Your task to perform on an android device: Clear the cart on target. Search for razer blade on target, select the first entry, add it to the cart, then select checkout. Image 0: 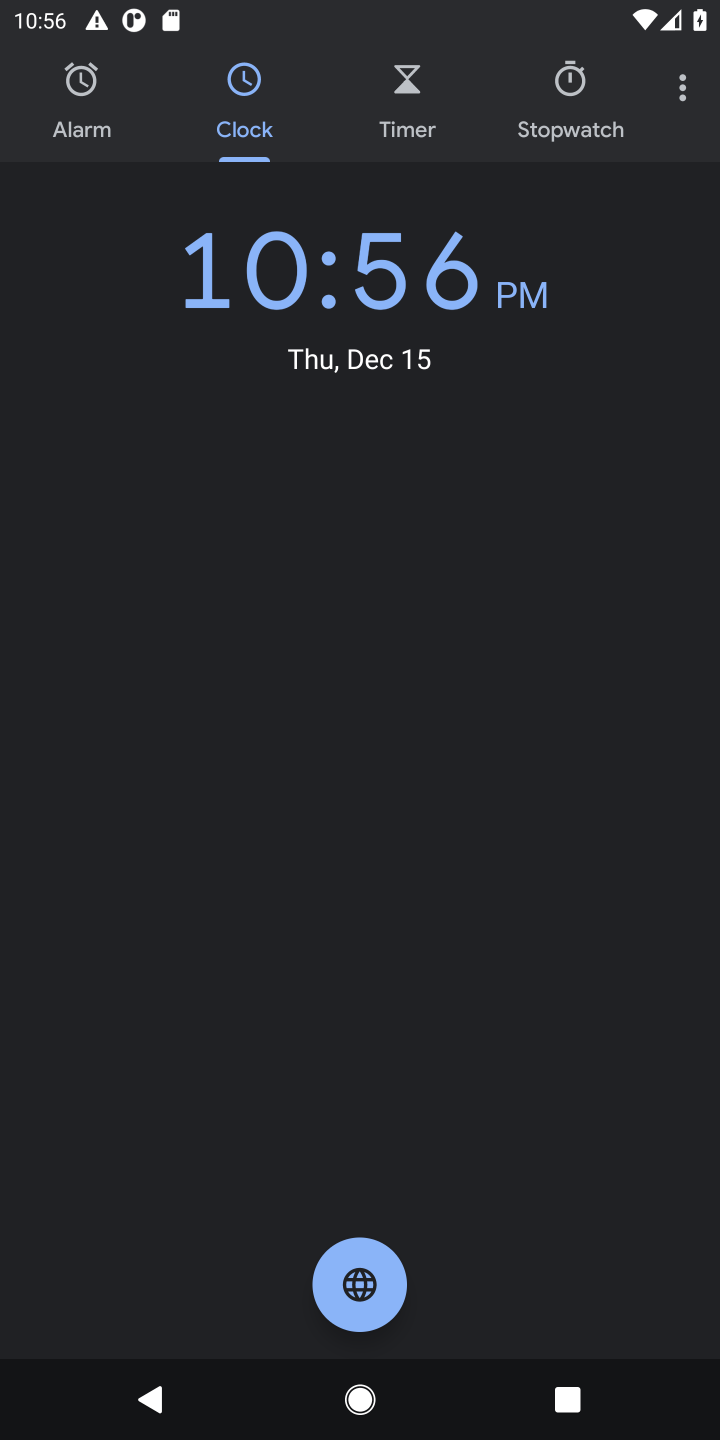
Step 0: press home button
Your task to perform on an android device: Clear the cart on target. Search for razer blade on target, select the first entry, add it to the cart, then select checkout. Image 1: 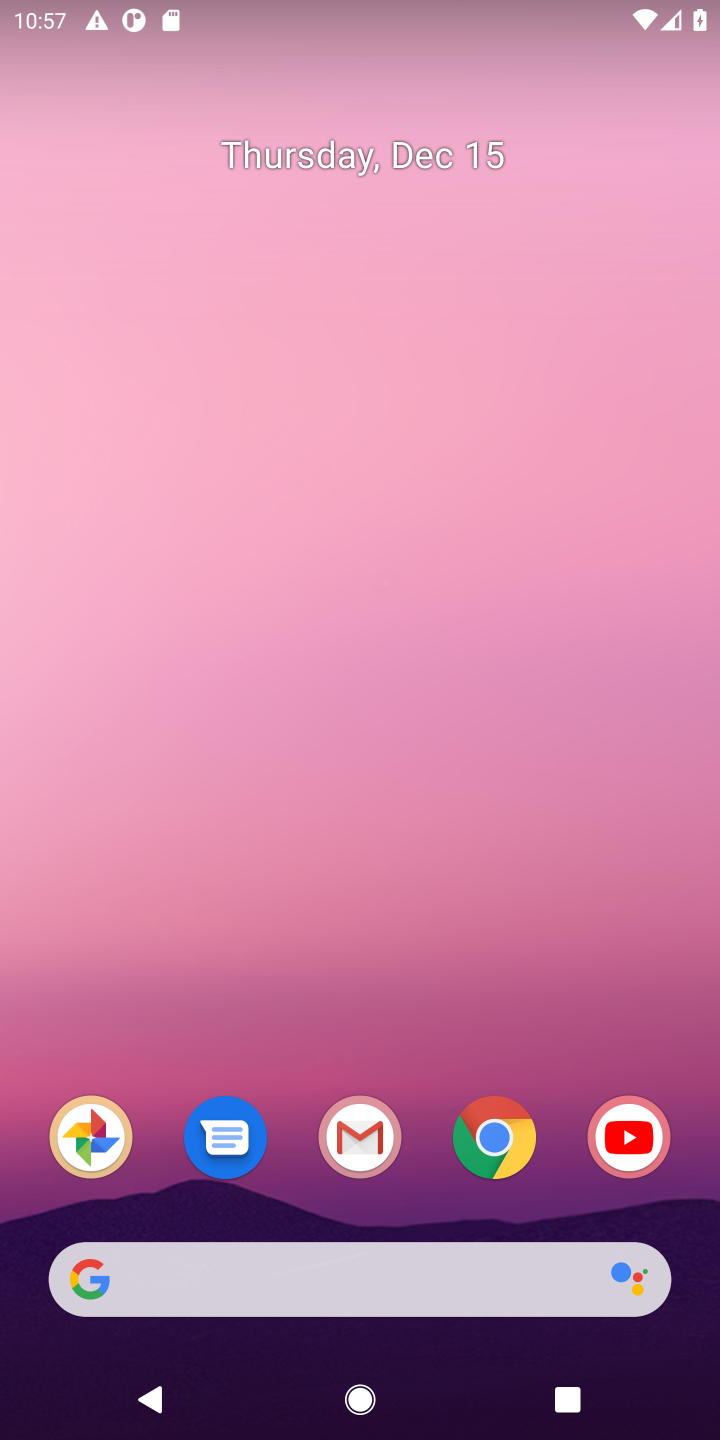
Step 1: drag from (446, 1275) to (383, 418)
Your task to perform on an android device: Clear the cart on target. Search for razer blade on target, select the first entry, add it to the cart, then select checkout. Image 2: 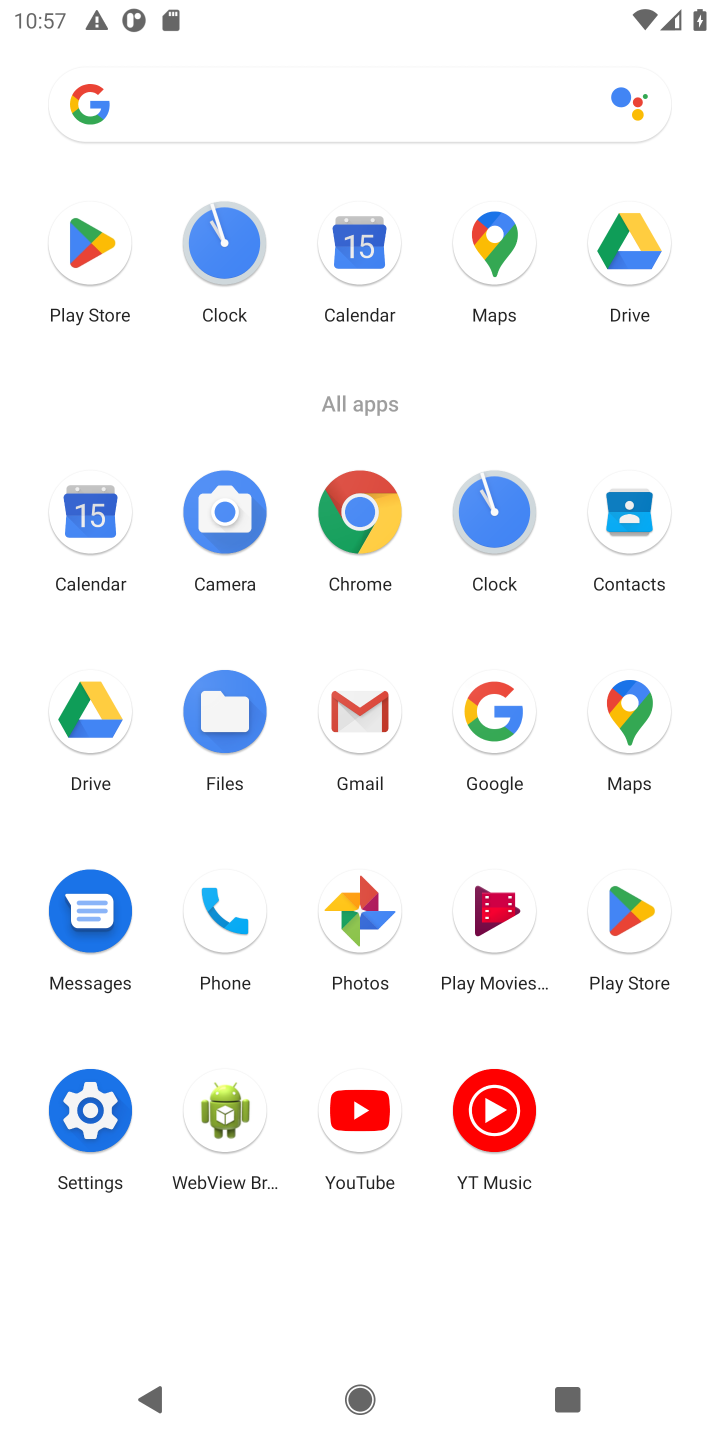
Step 2: click (479, 705)
Your task to perform on an android device: Clear the cart on target. Search for razer blade on target, select the first entry, add it to the cart, then select checkout. Image 3: 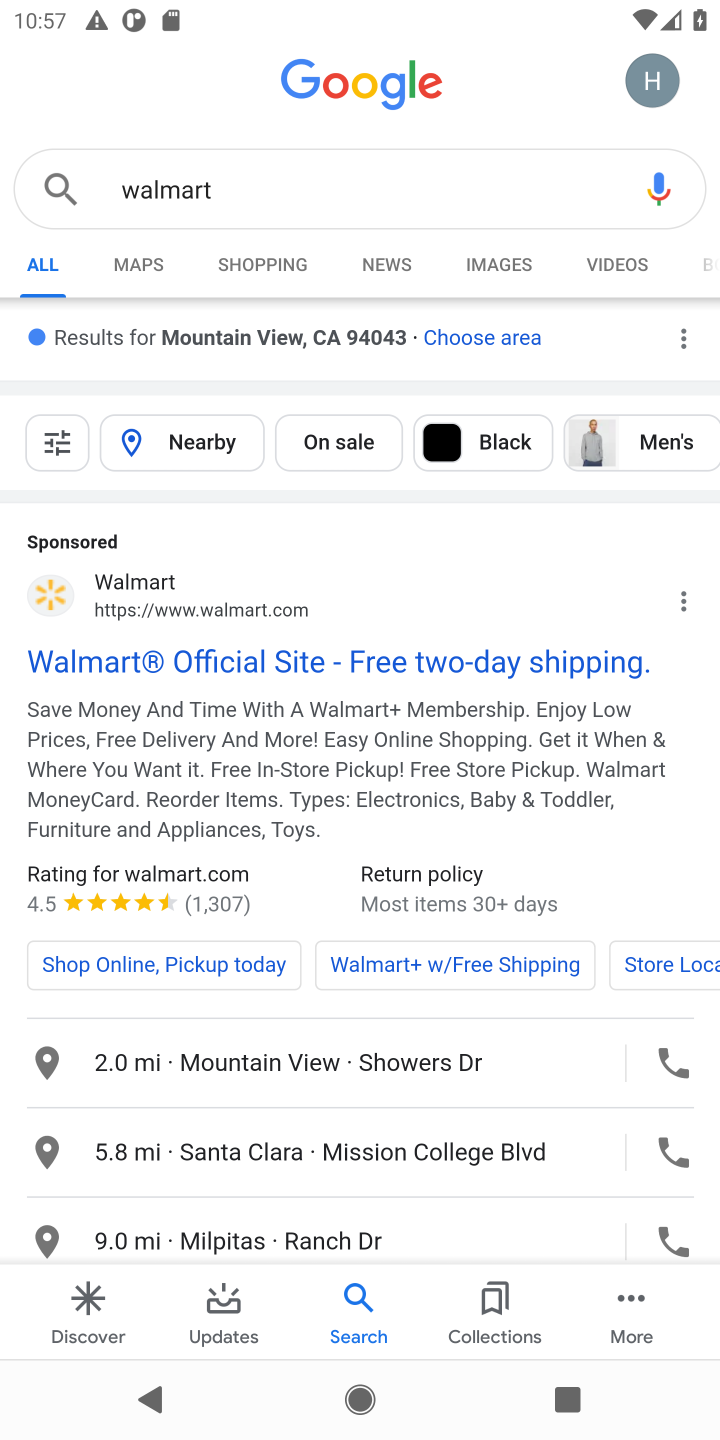
Step 3: click (181, 191)
Your task to perform on an android device: Clear the cart on target. Search for razer blade on target, select the first entry, add it to the cart, then select checkout. Image 4: 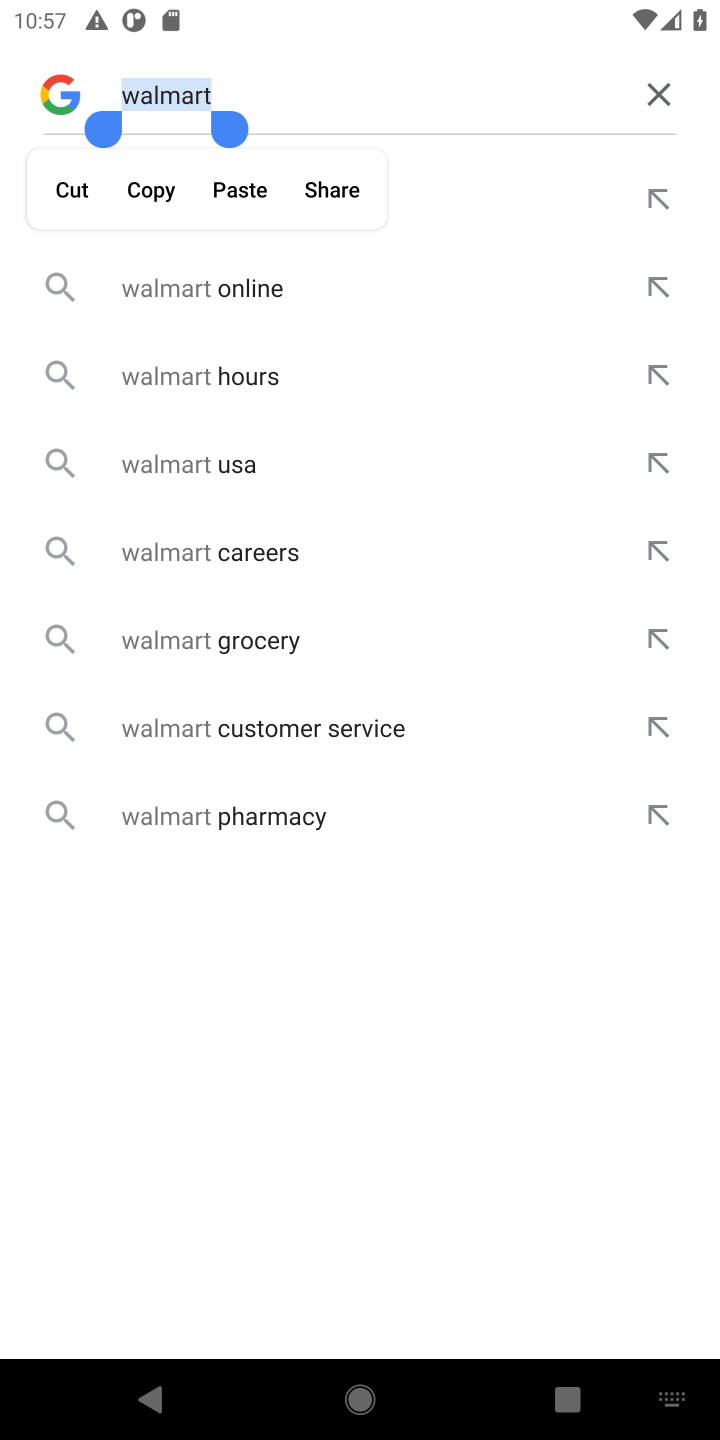
Step 4: click (664, 96)
Your task to perform on an android device: Clear the cart on target. Search for razer blade on target, select the first entry, add it to the cart, then select checkout. Image 5: 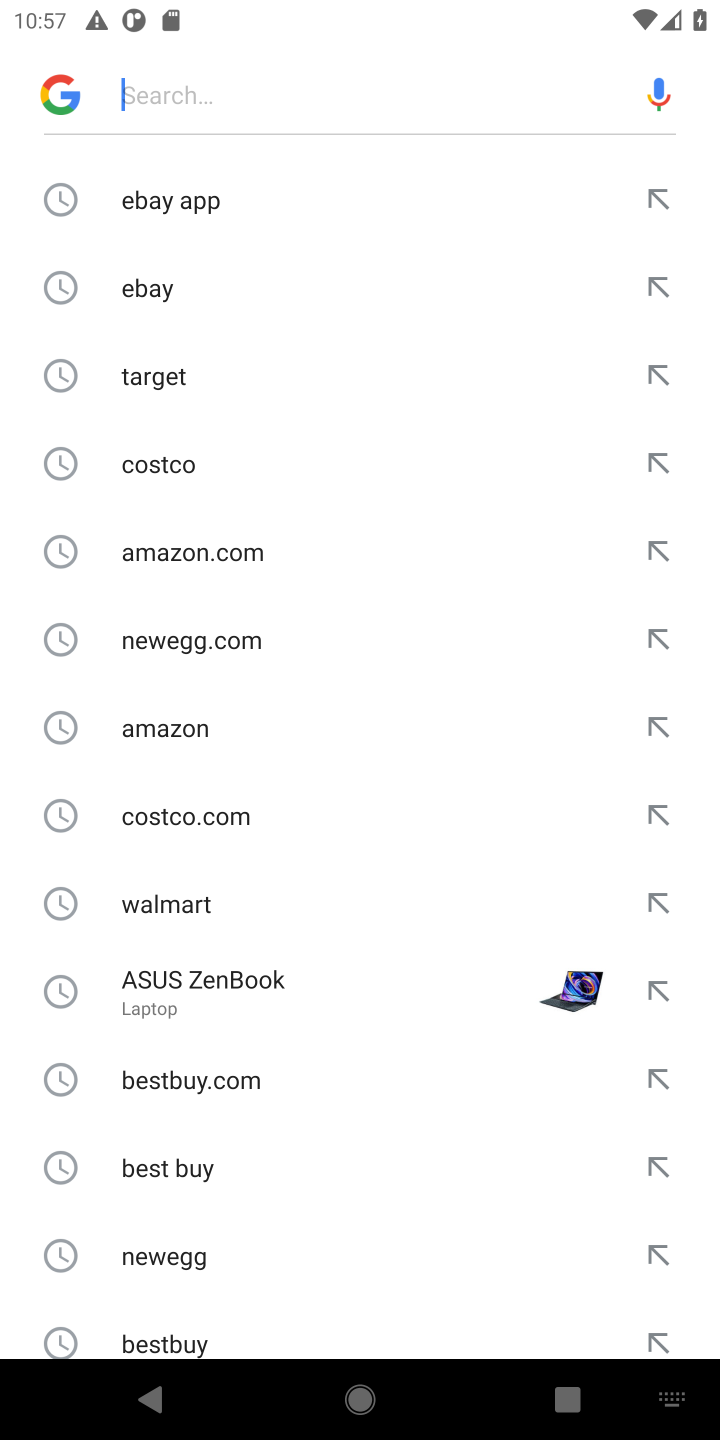
Step 5: drag from (166, 1292) to (146, 610)
Your task to perform on an android device: Clear the cart on target. Search for razer blade on target, select the first entry, add it to the cart, then select checkout. Image 6: 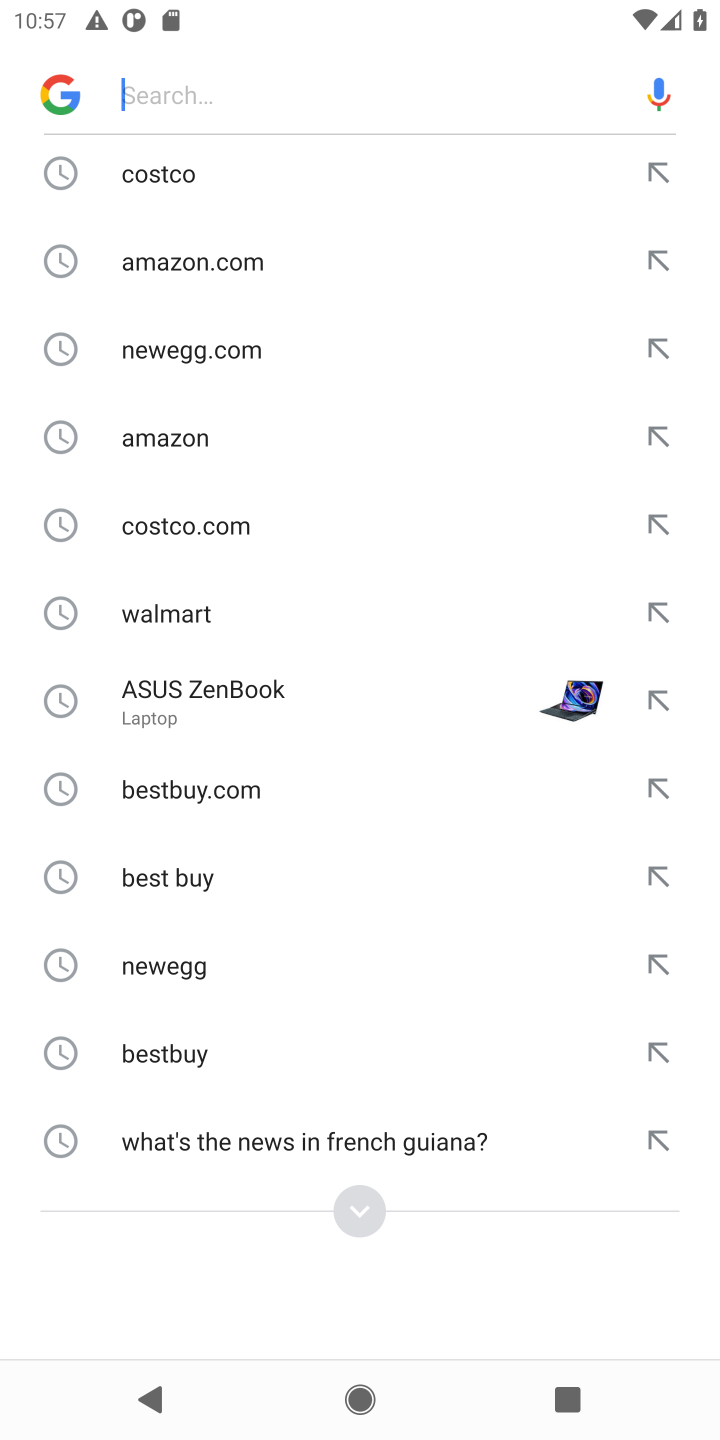
Step 6: drag from (192, 466) to (204, 1030)
Your task to perform on an android device: Clear the cart on target. Search for razer blade on target, select the first entry, add it to the cart, then select checkout. Image 7: 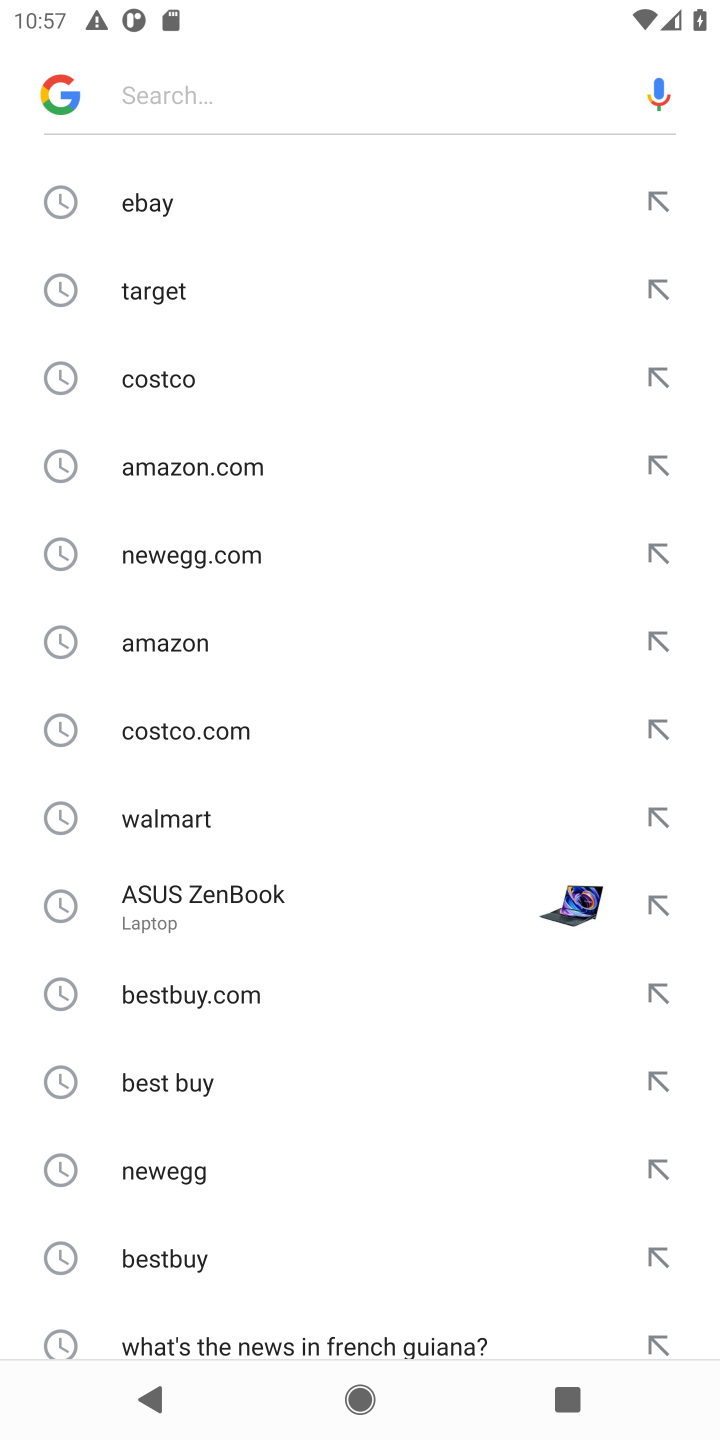
Step 7: click (171, 293)
Your task to perform on an android device: Clear the cart on target. Search for razer blade on target, select the first entry, add it to the cart, then select checkout. Image 8: 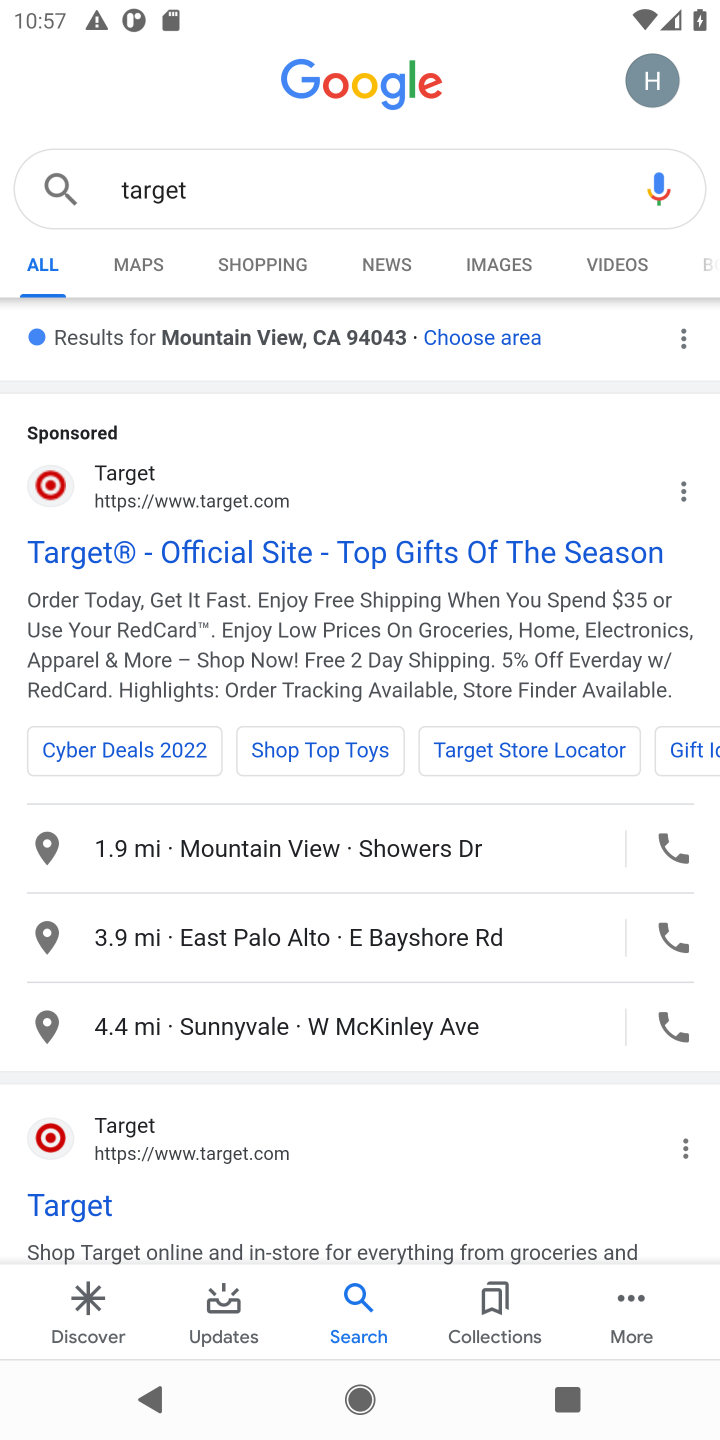
Step 8: click (206, 541)
Your task to perform on an android device: Clear the cart on target. Search for razer blade on target, select the first entry, add it to the cart, then select checkout. Image 9: 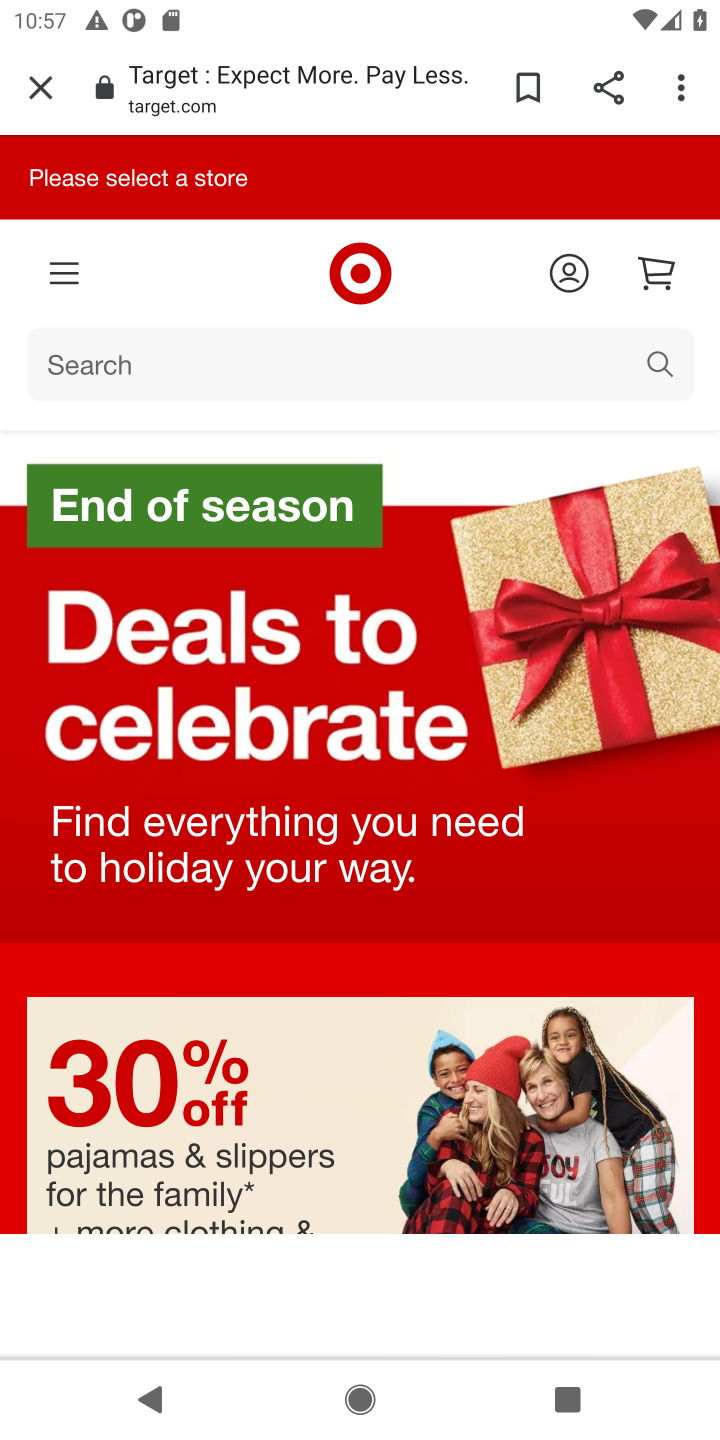
Step 9: click (107, 378)
Your task to perform on an android device: Clear the cart on target. Search for razer blade on target, select the first entry, add it to the cart, then select checkout. Image 10: 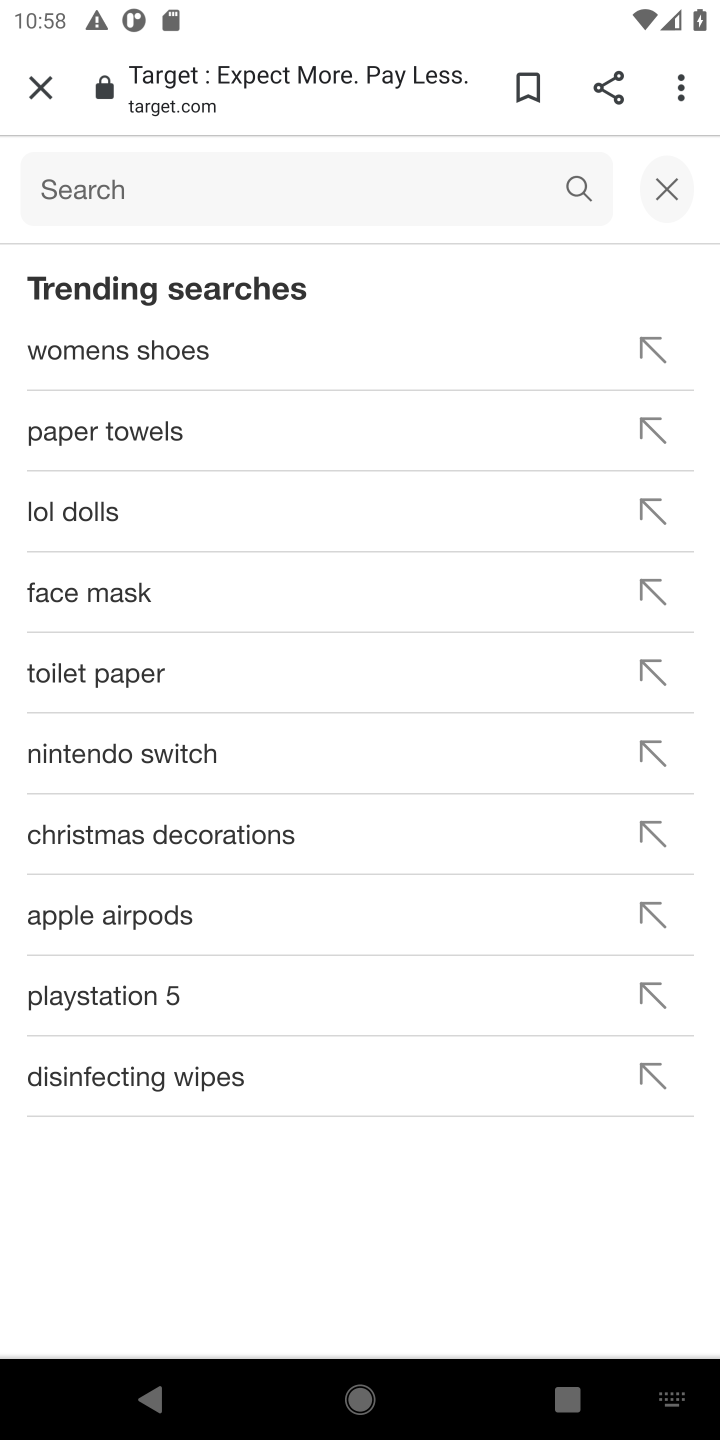
Step 10: type "razer blade"
Your task to perform on an android device: Clear the cart on target. Search for razer blade on target, select the first entry, add it to the cart, then select checkout. Image 11: 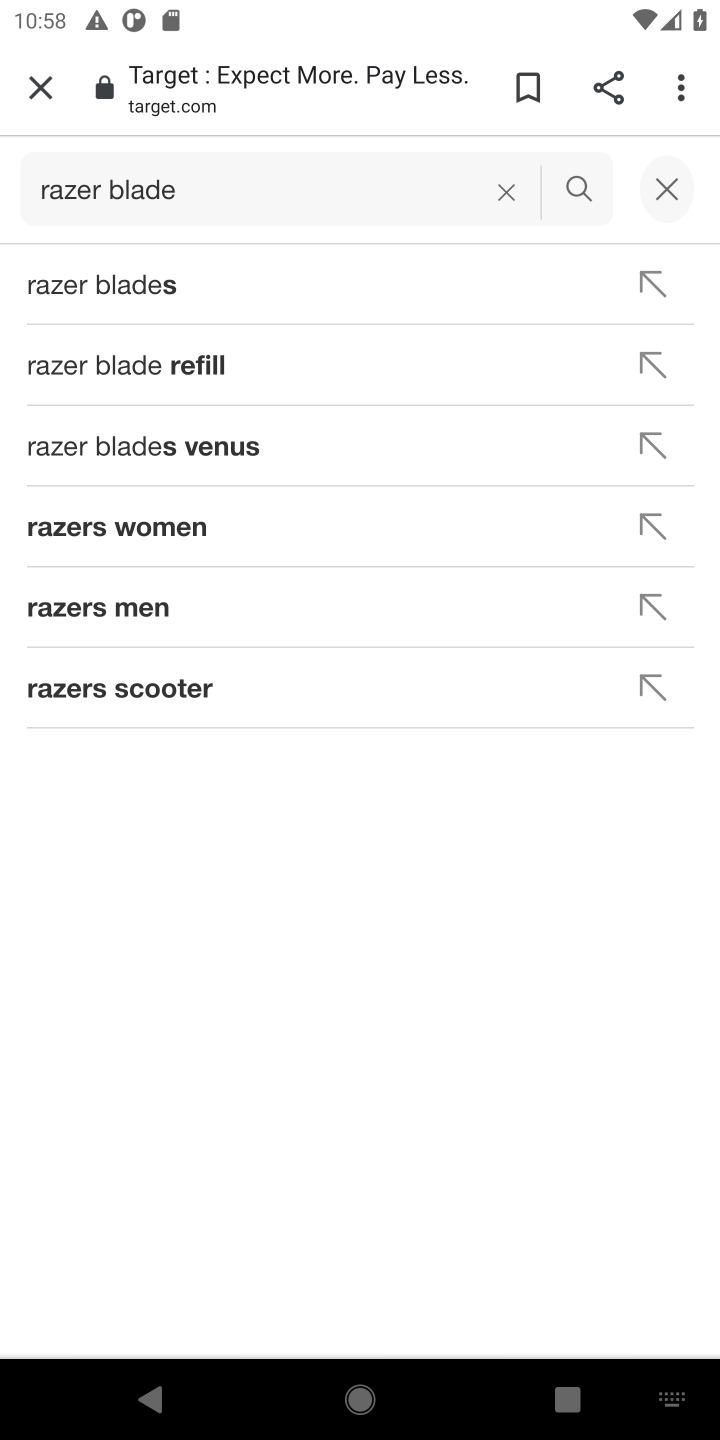
Step 11: click (103, 294)
Your task to perform on an android device: Clear the cart on target. Search for razer blade on target, select the first entry, add it to the cart, then select checkout. Image 12: 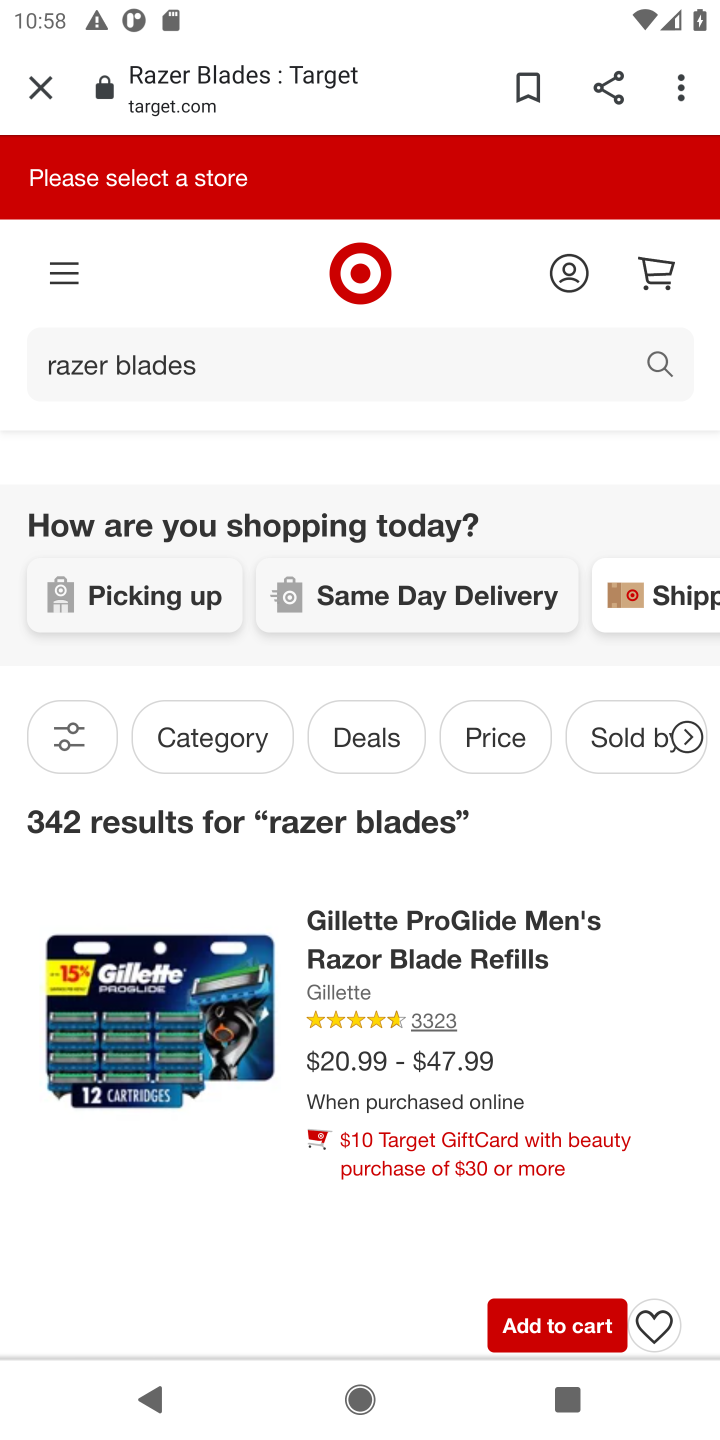
Step 12: click (563, 1327)
Your task to perform on an android device: Clear the cart on target. Search for razer blade on target, select the first entry, add it to the cart, then select checkout. Image 13: 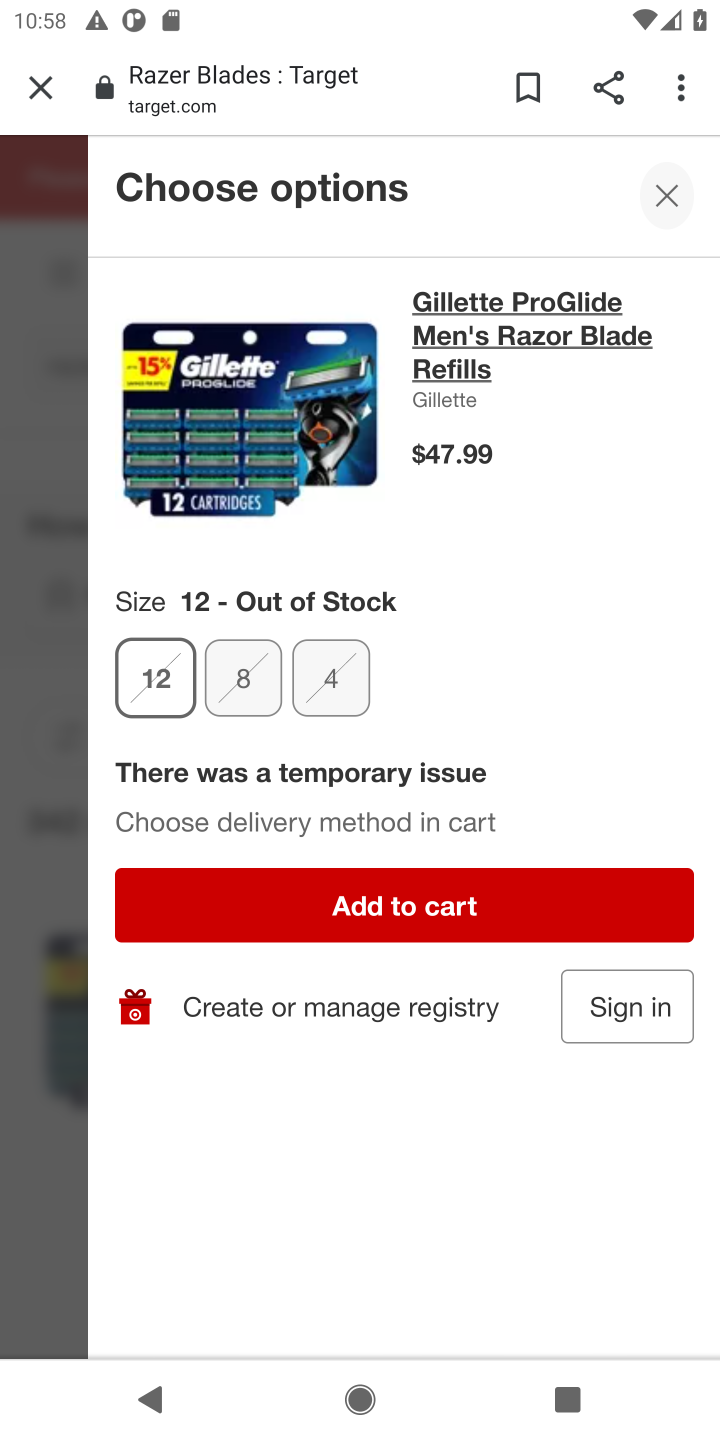
Step 13: click (145, 685)
Your task to perform on an android device: Clear the cart on target. Search for razer blade on target, select the first entry, add it to the cart, then select checkout. Image 14: 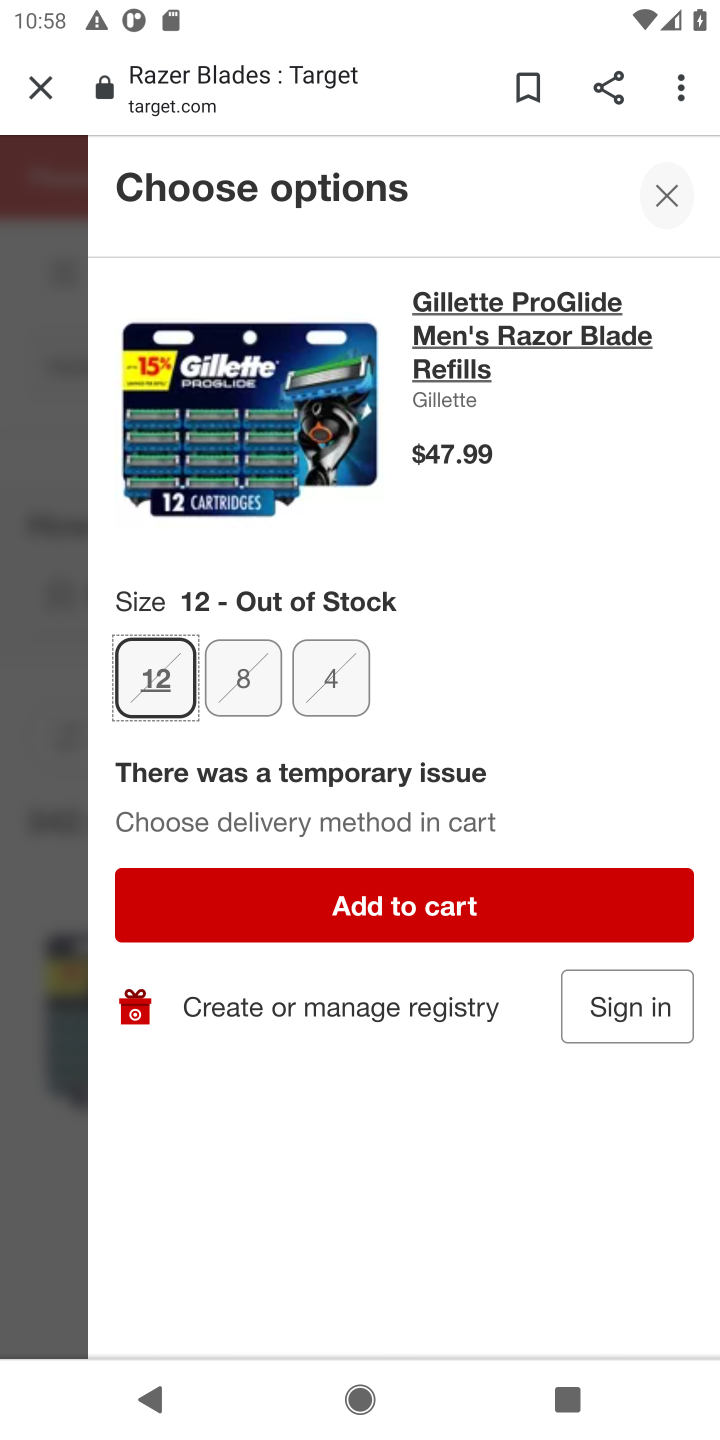
Step 14: click (404, 909)
Your task to perform on an android device: Clear the cart on target. Search for razer blade on target, select the first entry, add it to the cart, then select checkout. Image 15: 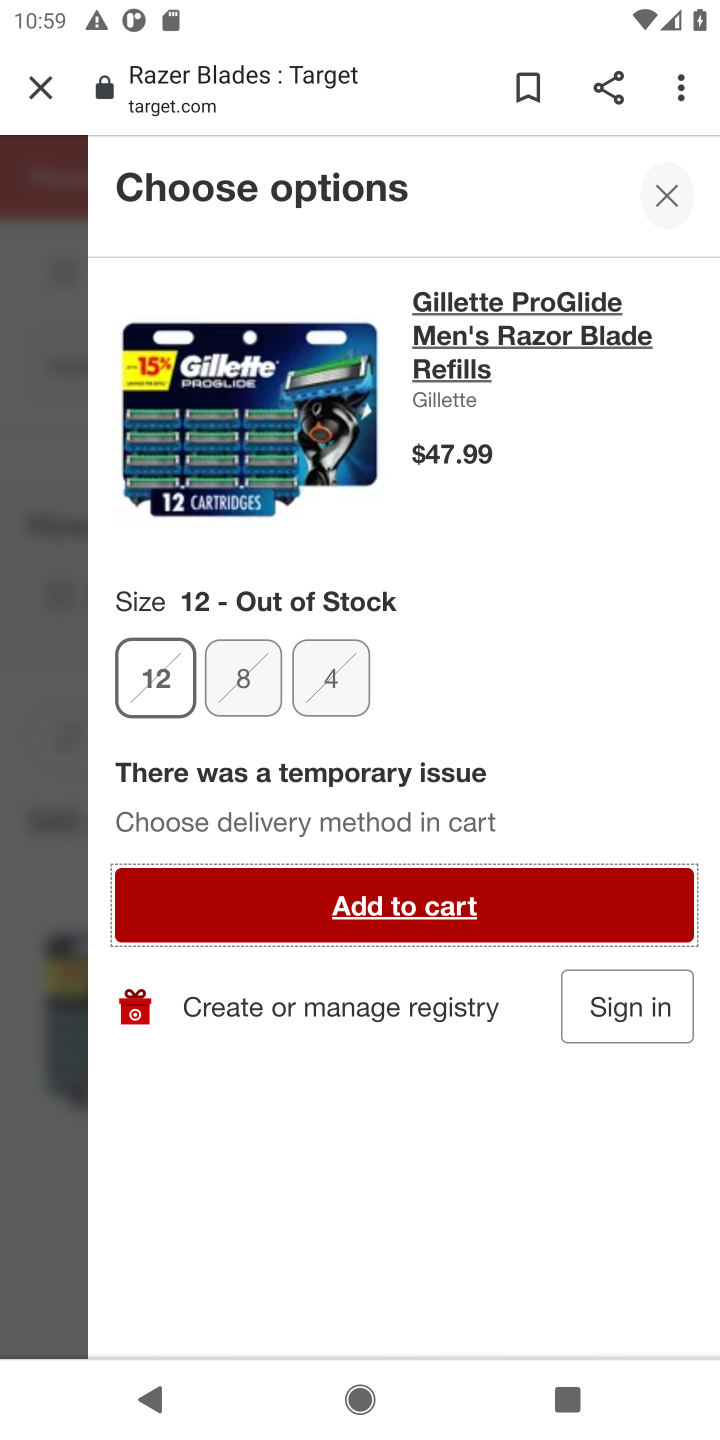
Step 15: click (154, 707)
Your task to perform on an android device: Clear the cart on target. Search for razer blade on target, select the first entry, add it to the cart, then select checkout. Image 16: 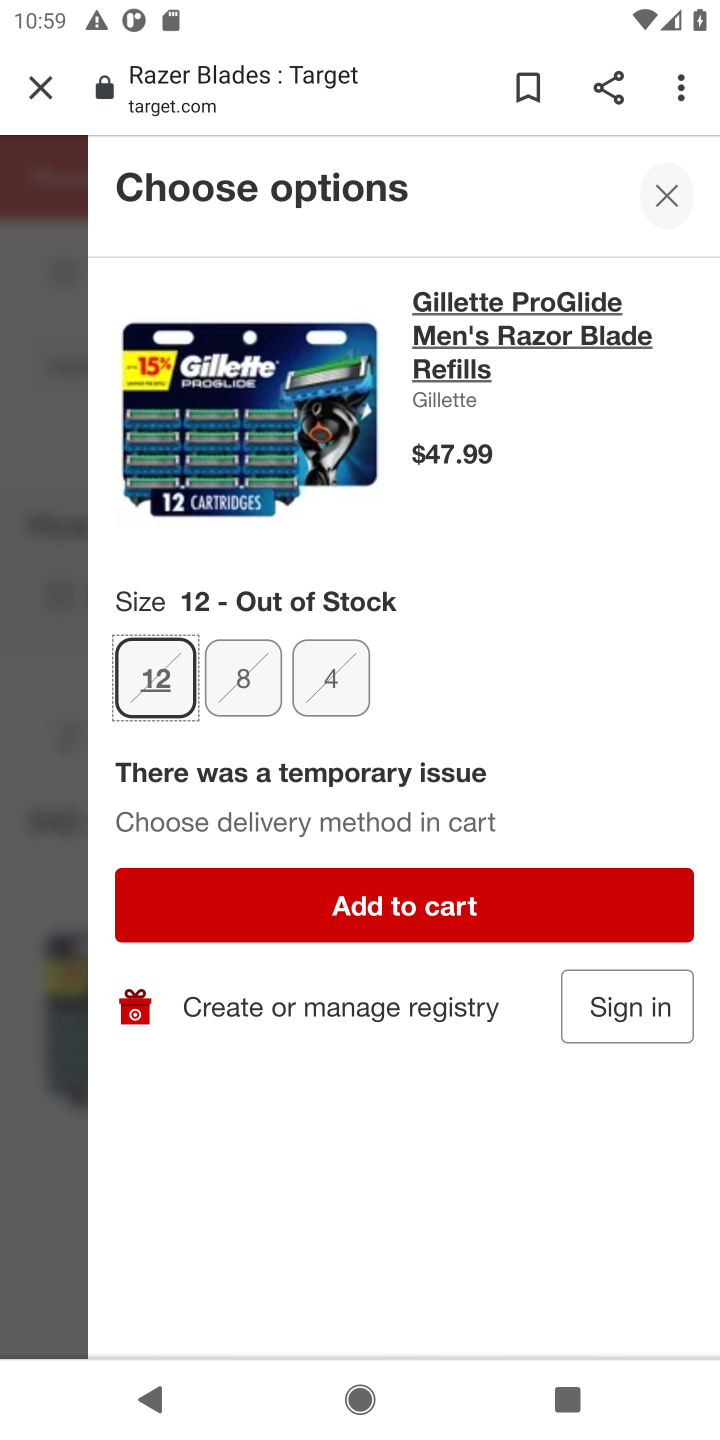
Step 16: click (351, 918)
Your task to perform on an android device: Clear the cart on target. Search for razer blade on target, select the first entry, add it to the cart, then select checkout. Image 17: 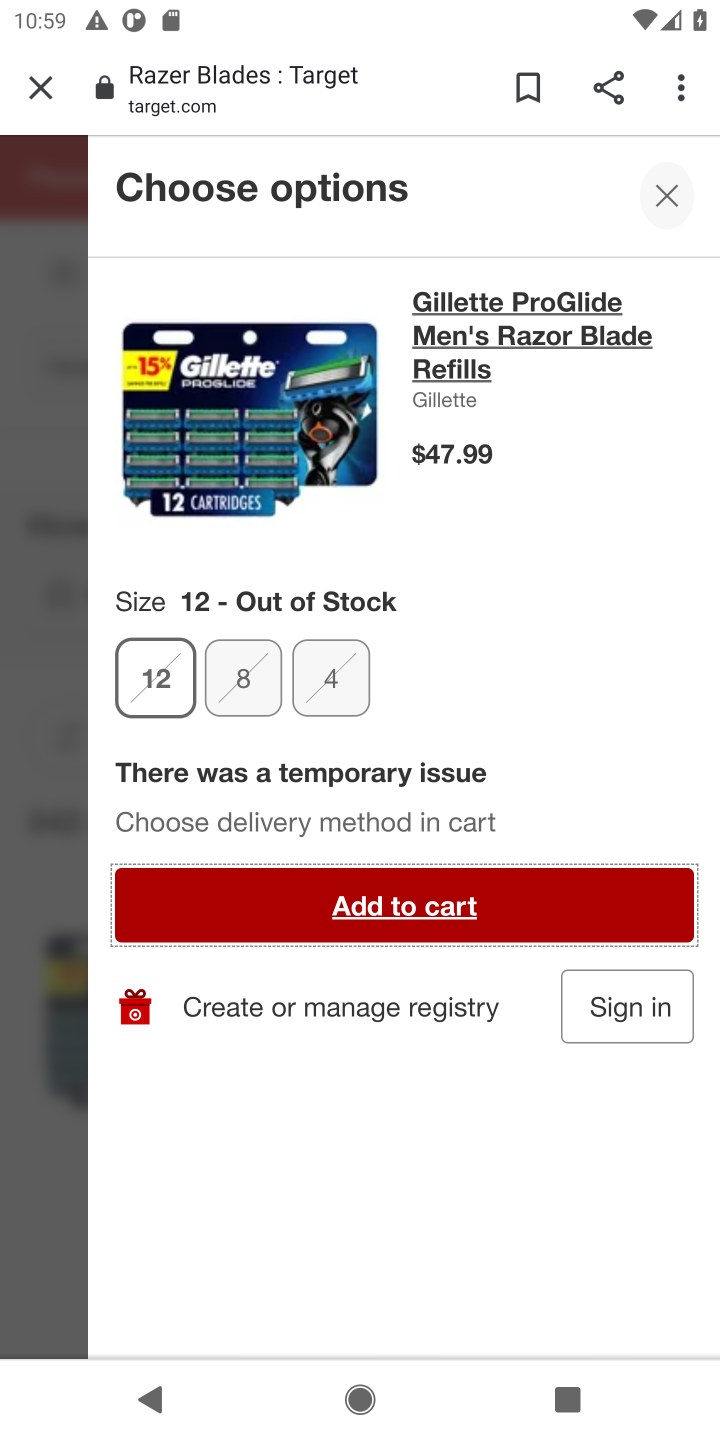
Step 17: click (358, 924)
Your task to perform on an android device: Clear the cart on target. Search for razer blade on target, select the first entry, add it to the cart, then select checkout. Image 18: 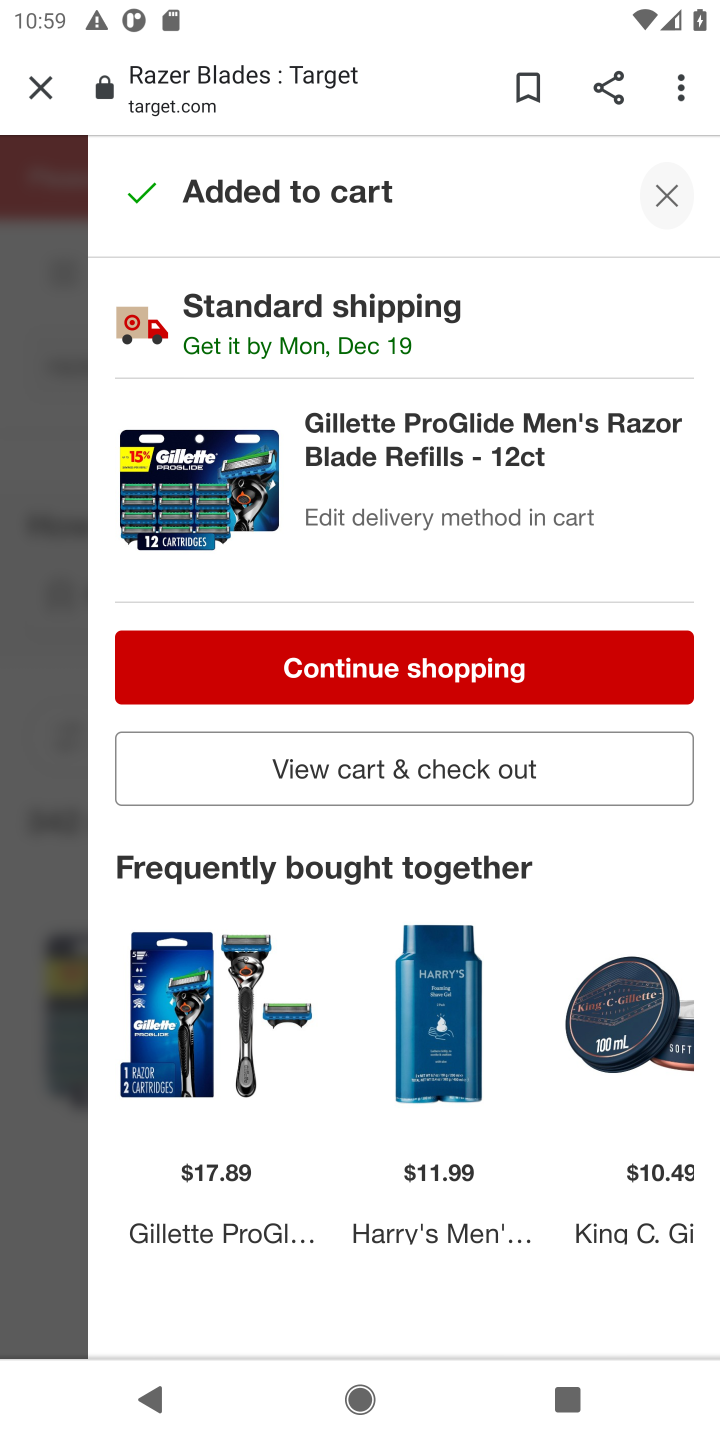
Step 18: click (671, 200)
Your task to perform on an android device: Clear the cart on target. Search for razer blade on target, select the first entry, add it to the cart, then select checkout. Image 19: 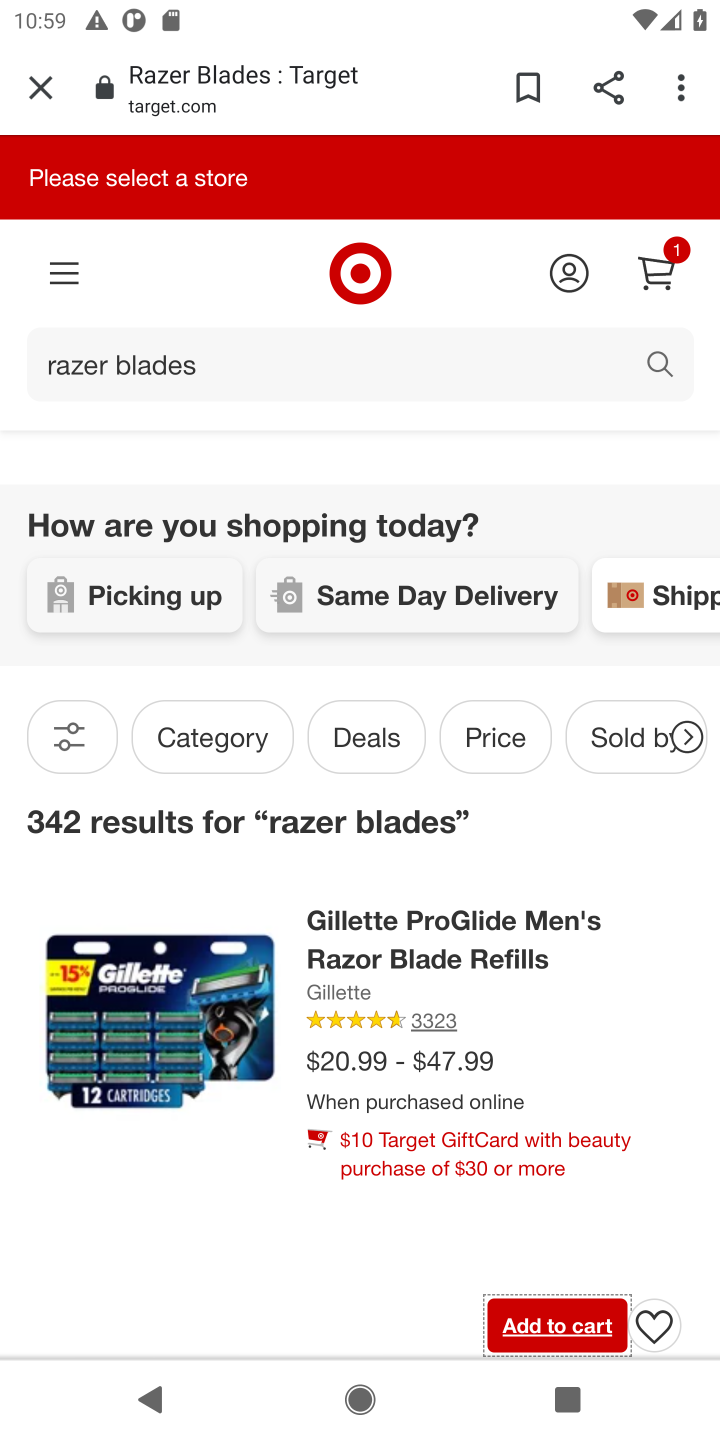
Step 19: click (654, 270)
Your task to perform on an android device: Clear the cart on target. Search for razer blade on target, select the first entry, add it to the cart, then select checkout. Image 20: 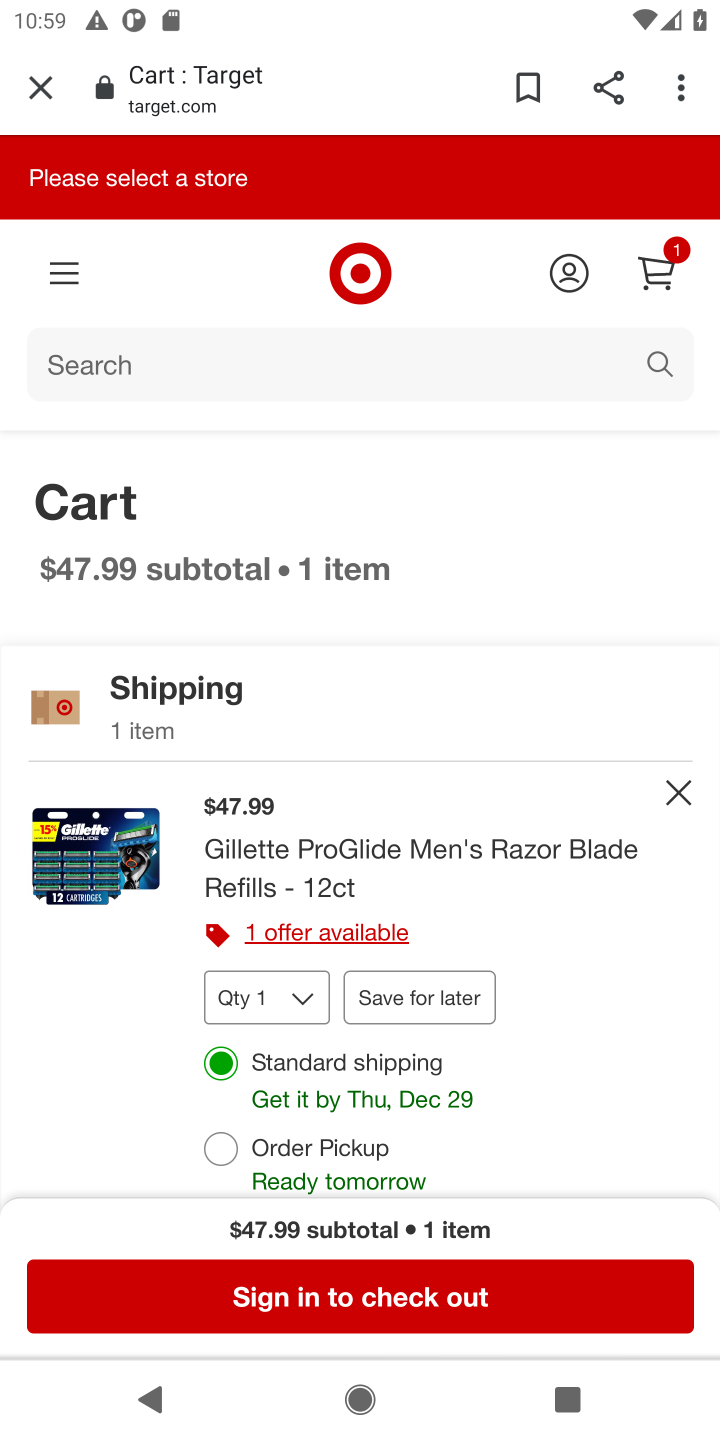
Step 20: drag from (493, 928) to (460, 688)
Your task to perform on an android device: Clear the cart on target. Search for razer blade on target, select the first entry, add it to the cart, then select checkout. Image 21: 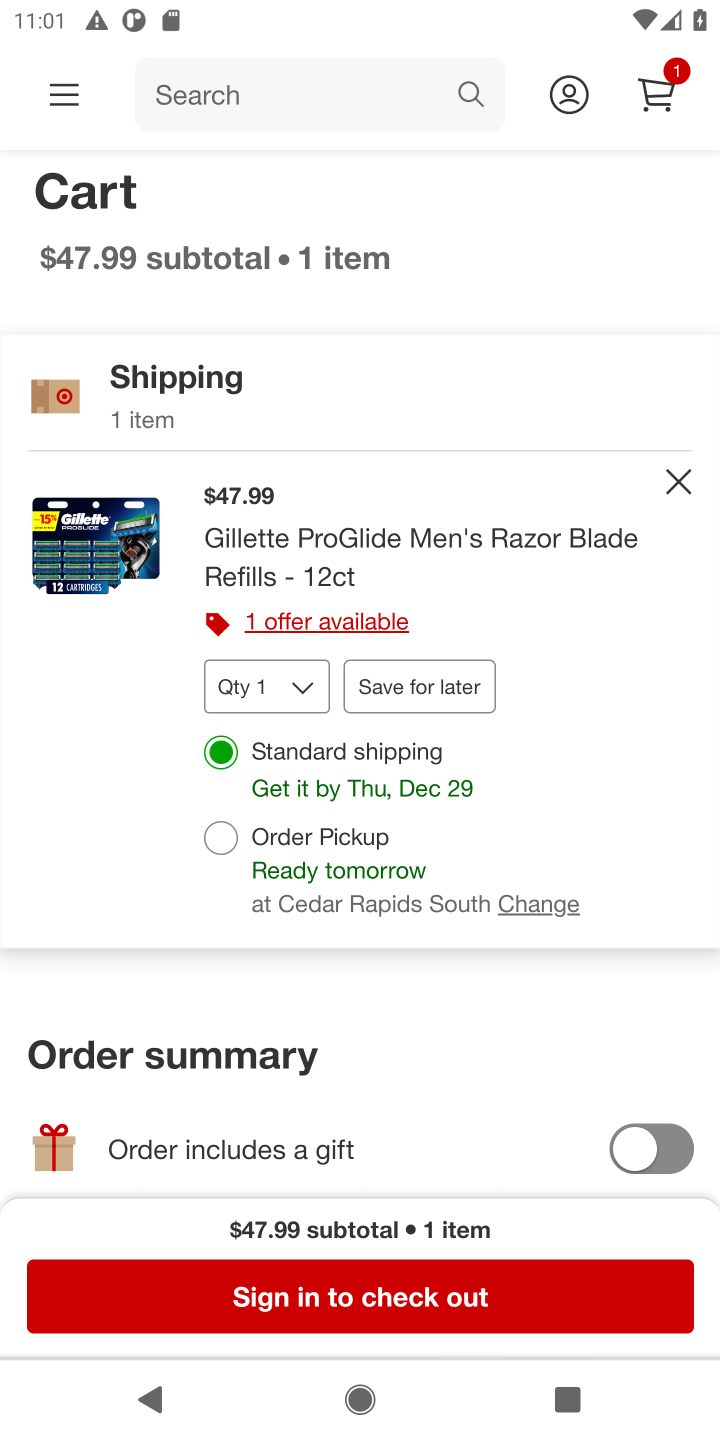
Step 21: drag from (534, 848) to (438, 342)
Your task to perform on an android device: Clear the cart on target. Search for razer blade on target, select the first entry, add it to the cart, then select checkout. Image 22: 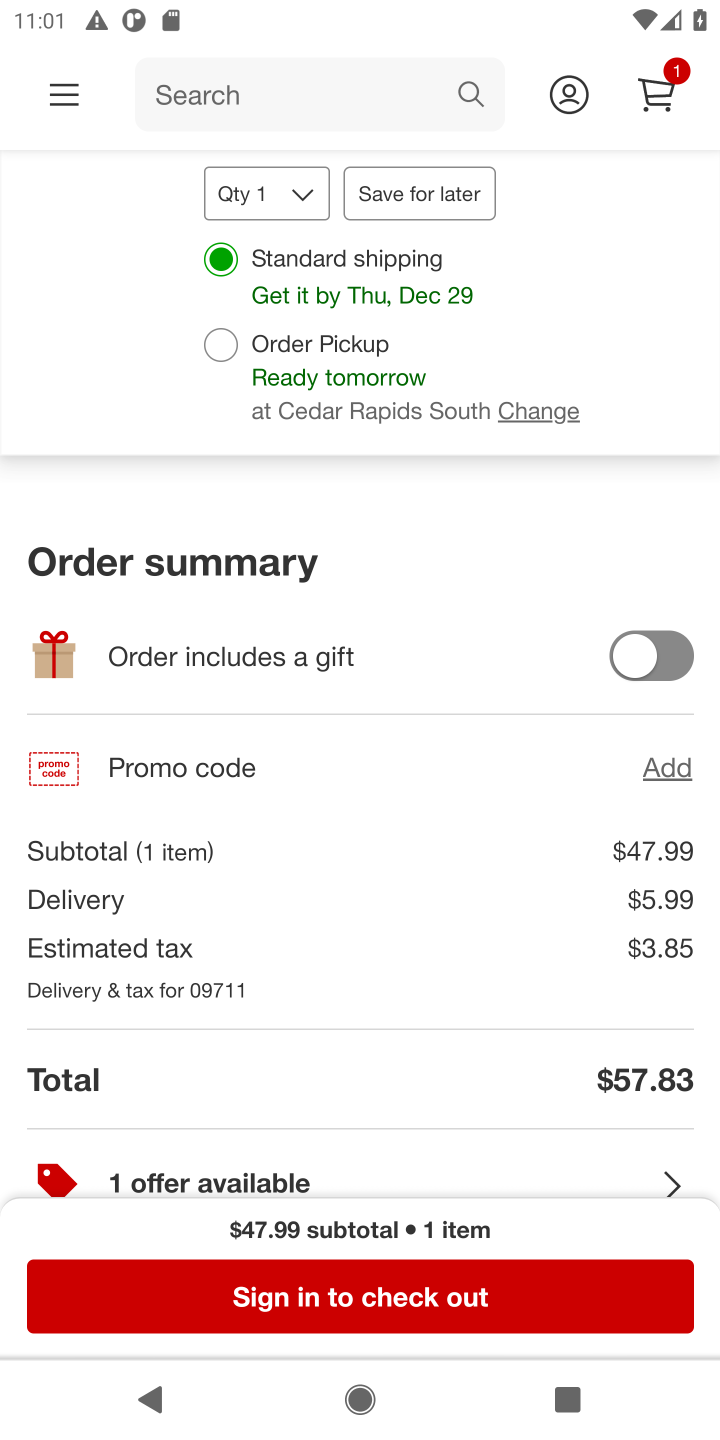
Step 22: click (369, 1297)
Your task to perform on an android device: Clear the cart on target. Search for razer blade on target, select the first entry, add it to the cart, then select checkout. Image 23: 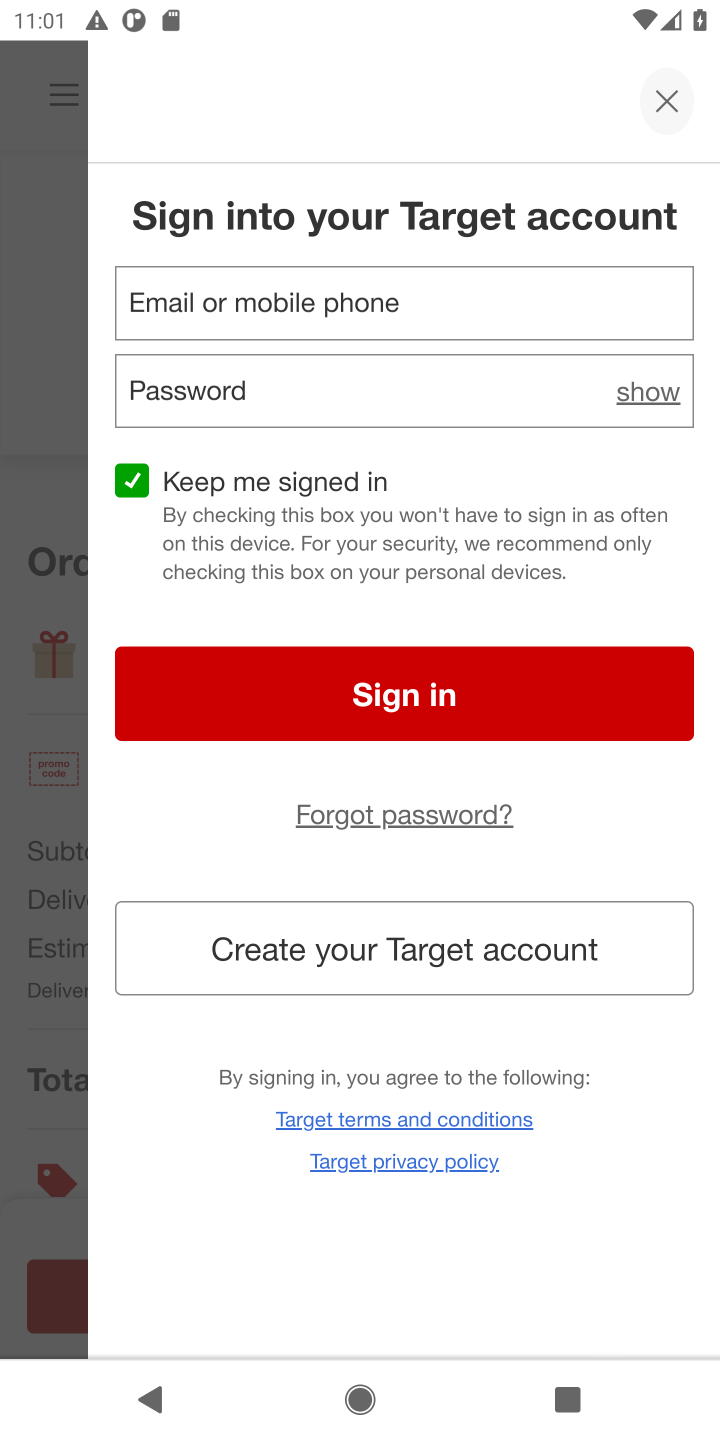
Step 23: task complete